Your task to perform on an android device: manage bookmarks in the chrome app Image 0: 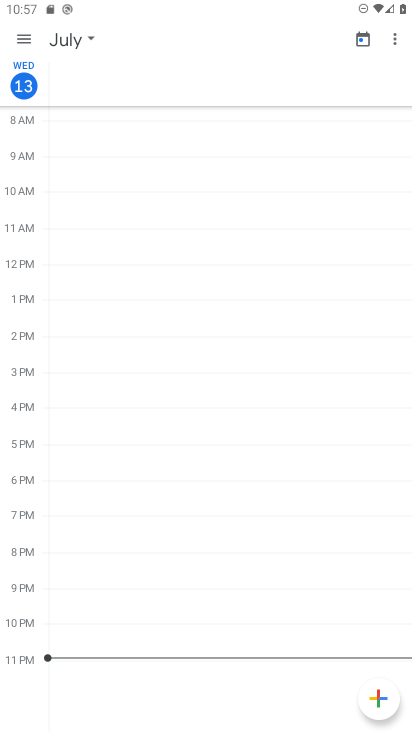
Step 0: press home button
Your task to perform on an android device: manage bookmarks in the chrome app Image 1: 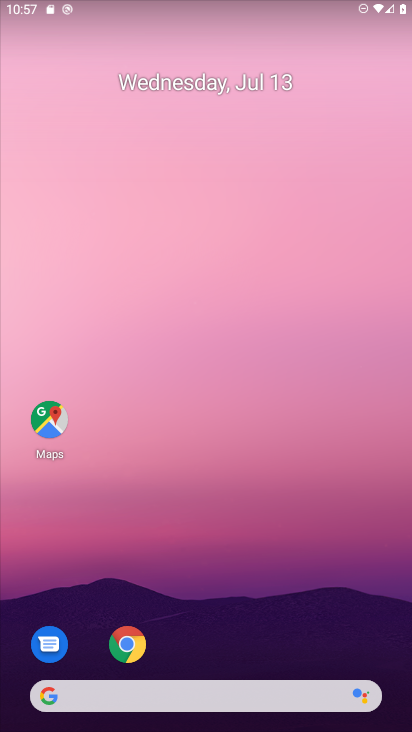
Step 1: click (123, 644)
Your task to perform on an android device: manage bookmarks in the chrome app Image 2: 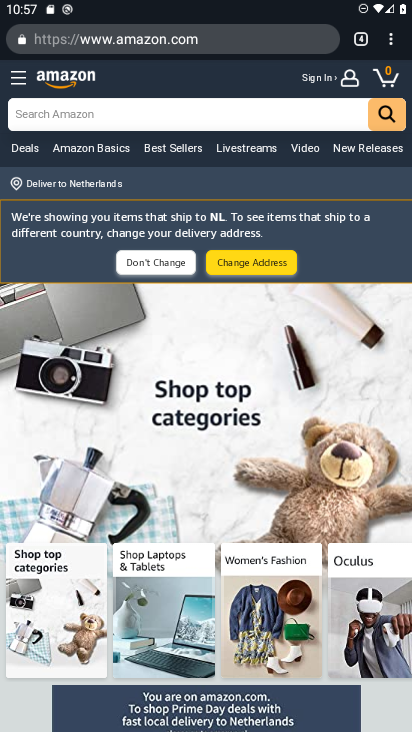
Step 2: click (393, 41)
Your task to perform on an android device: manage bookmarks in the chrome app Image 3: 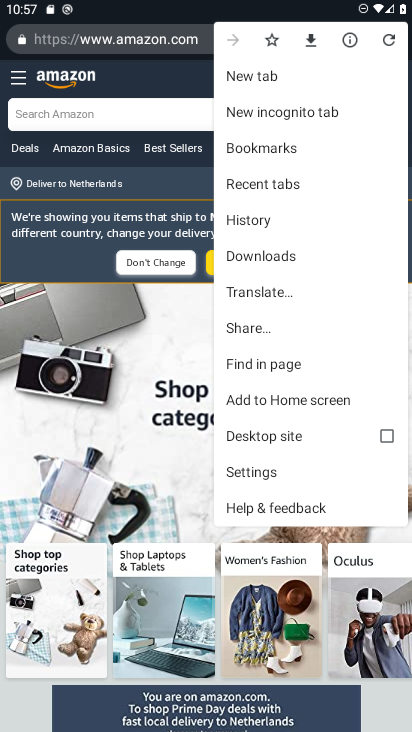
Step 3: click (270, 147)
Your task to perform on an android device: manage bookmarks in the chrome app Image 4: 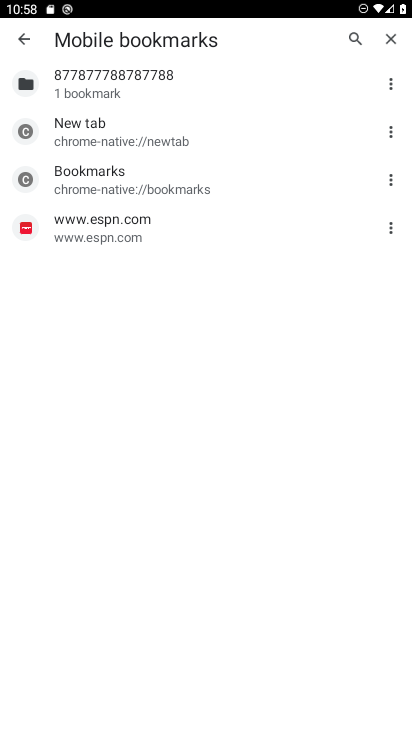
Step 4: click (391, 129)
Your task to perform on an android device: manage bookmarks in the chrome app Image 5: 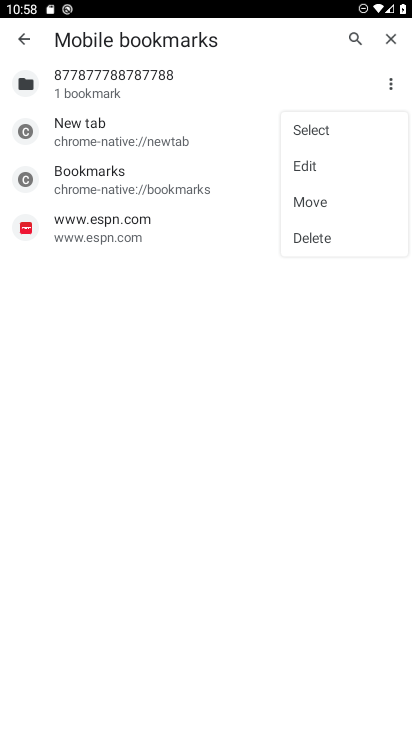
Step 5: click (315, 159)
Your task to perform on an android device: manage bookmarks in the chrome app Image 6: 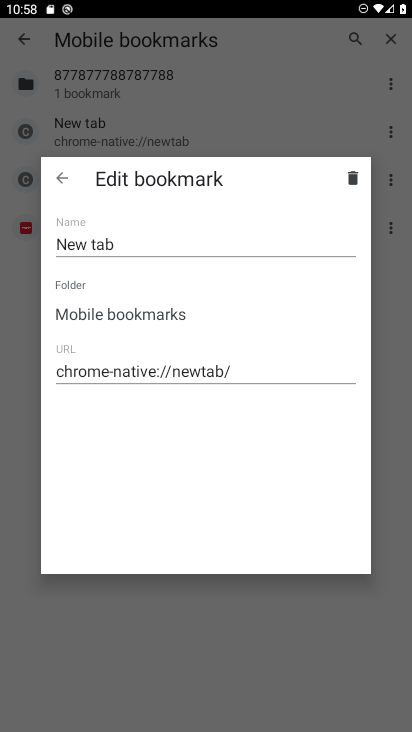
Step 6: task complete